Your task to perform on an android device: Open sound settings Image 0: 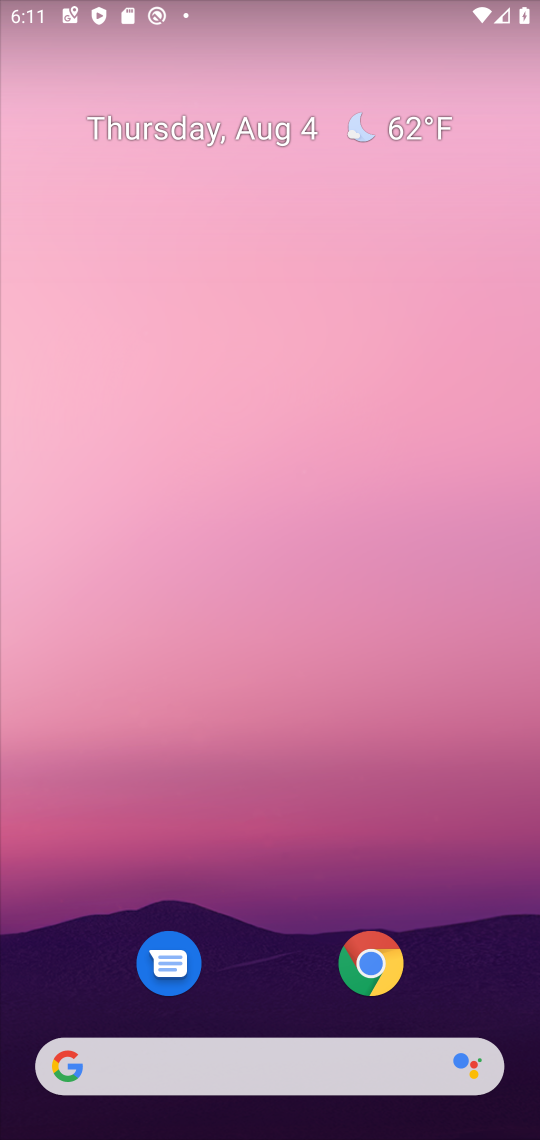
Step 0: drag from (338, 837) to (264, 207)
Your task to perform on an android device: Open sound settings Image 1: 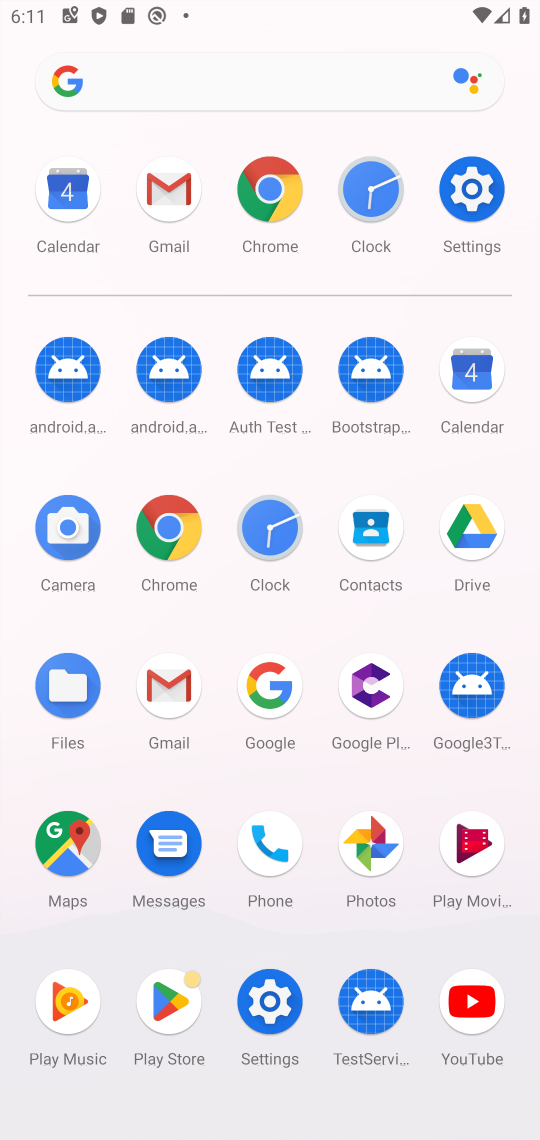
Step 1: click (472, 199)
Your task to perform on an android device: Open sound settings Image 2: 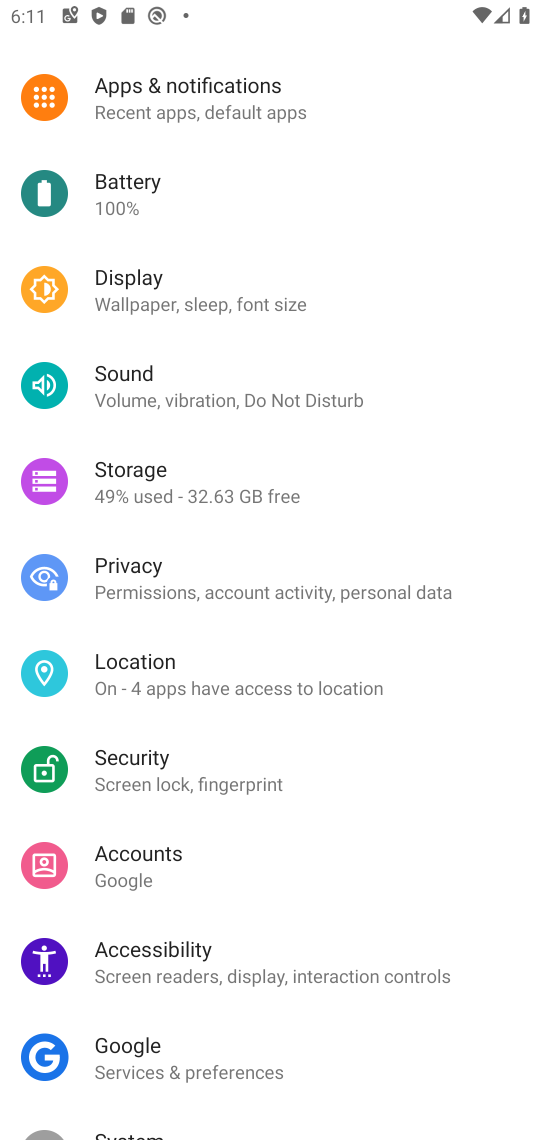
Step 2: click (112, 365)
Your task to perform on an android device: Open sound settings Image 3: 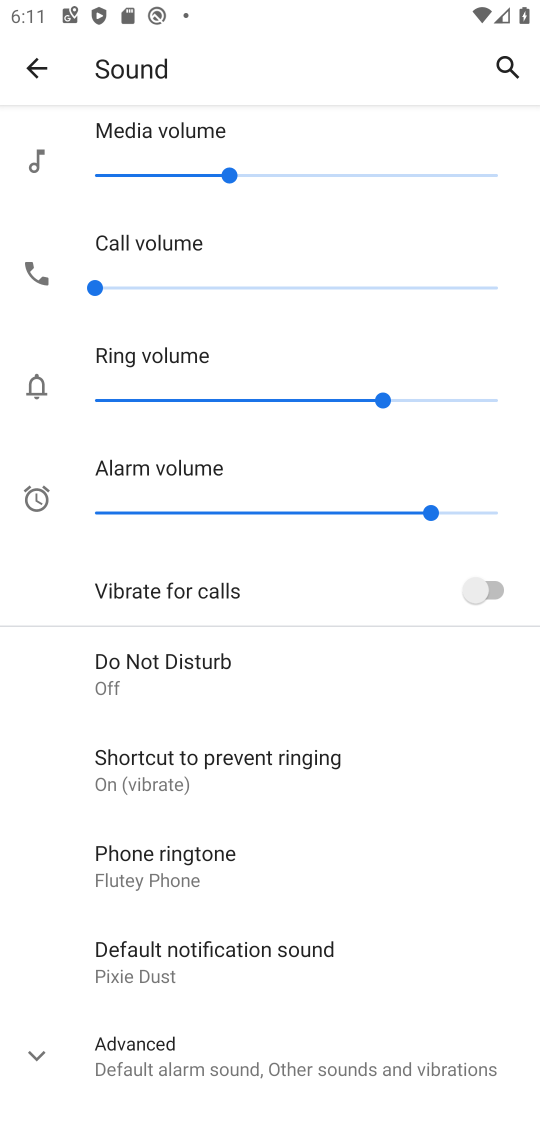
Step 3: task complete